Your task to perform on an android device: Open Google Chrome Image 0: 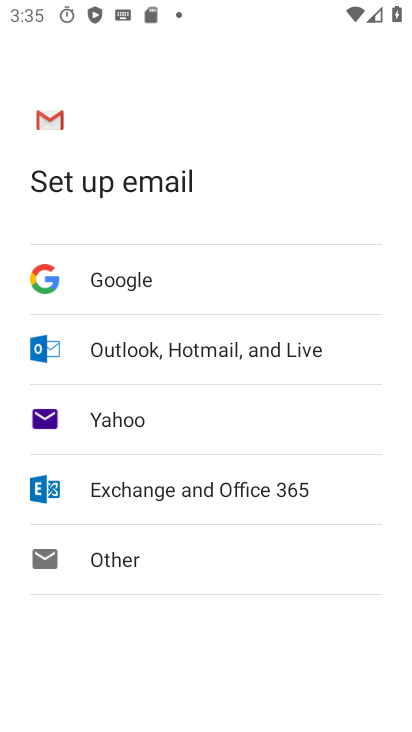
Step 0: press home button
Your task to perform on an android device: Open Google Chrome Image 1: 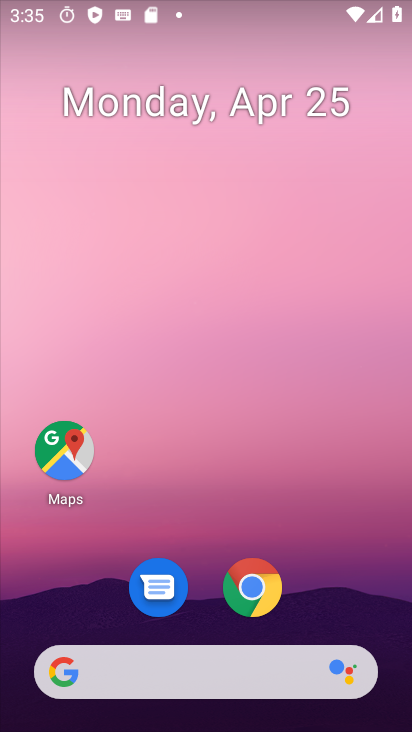
Step 1: click (247, 582)
Your task to perform on an android device: Open Google Chrome Image 2: 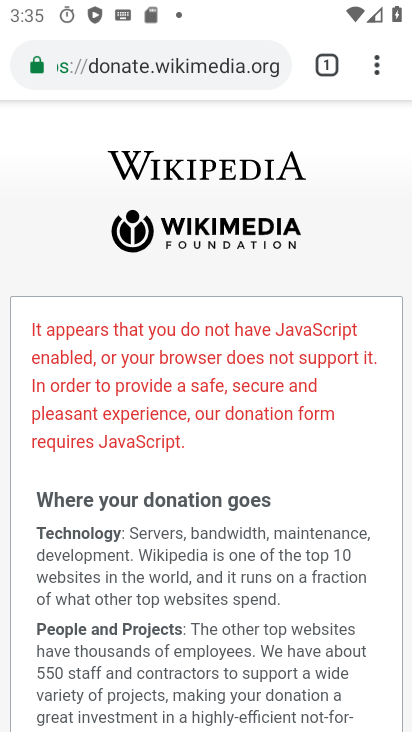
Step 2: task complete